Your task to perform on an android device: open chrome and create a bookmark for the current page Image 0: 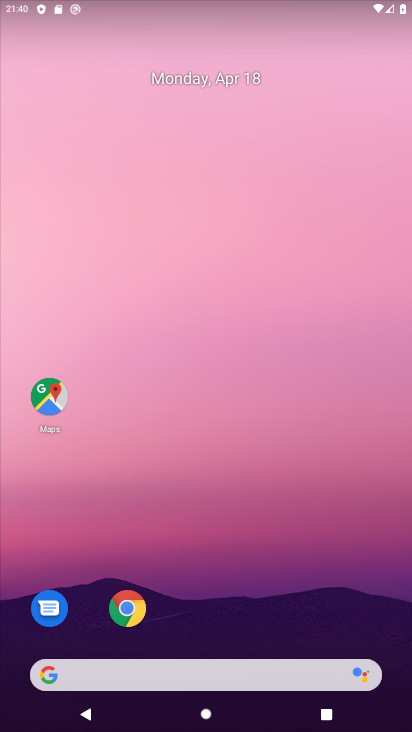
Step 0: click (129, 603)
Your task to perform on an android device: open chrome and create a bookmark for the current page Image 1: 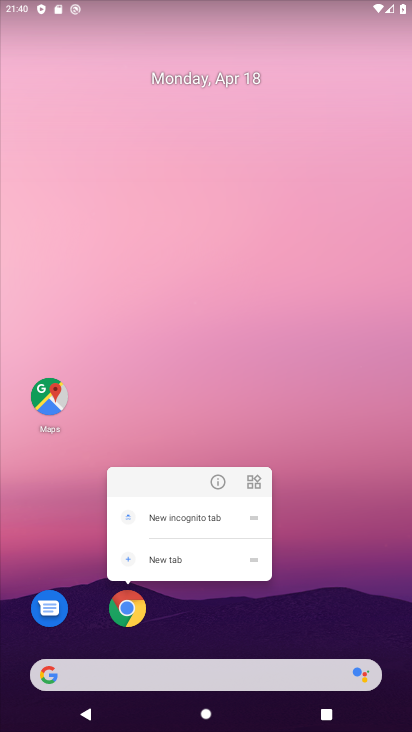
Step 1: click (129, 603)
Your task to perform on an android device: open chrome and create a bookmark for the current page Image 2: 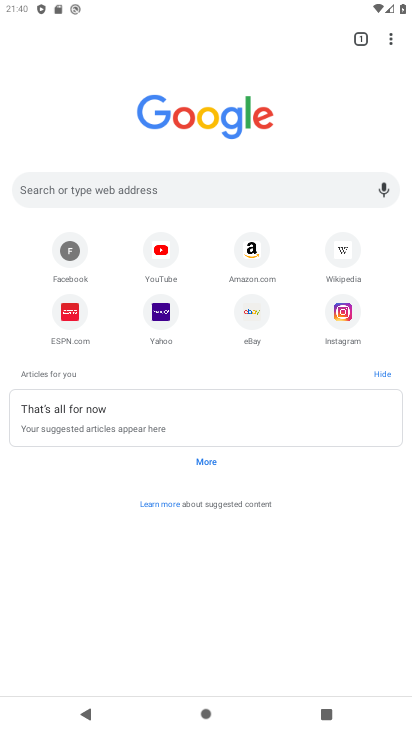
Step 2: click (391, 39)
Your task to perform on an android device: open chrome and create a bookmark for the current page Image 3: 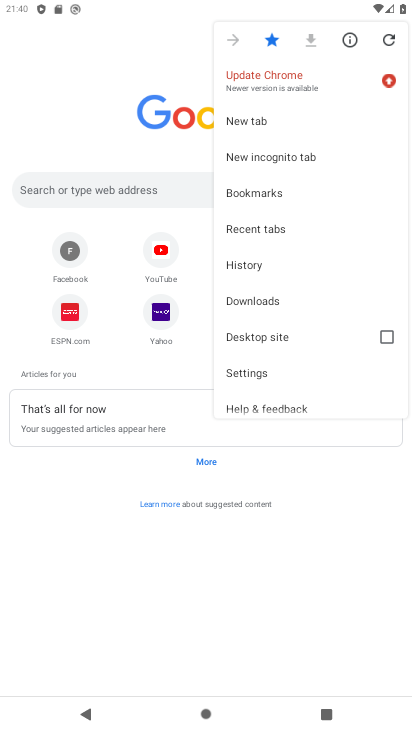
Step 3: click (279, 192)
Your task to perform on an android device: open chrome and create a bookmark for the current page Image 4: 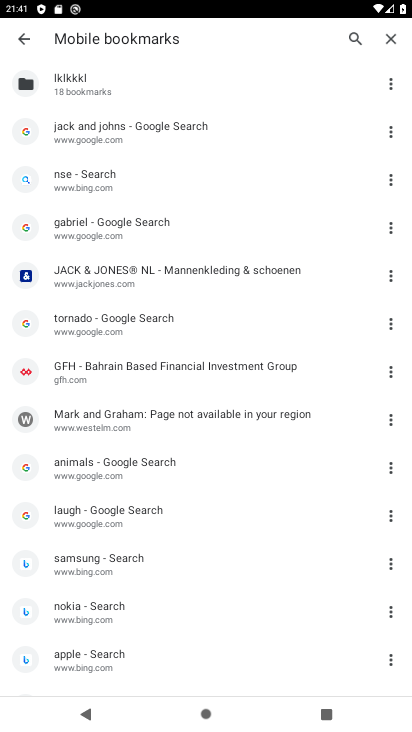
Step 4: click (130, 278)
Your task to perform on an android device: open chrome and create a bookmark for the current page Image 5: 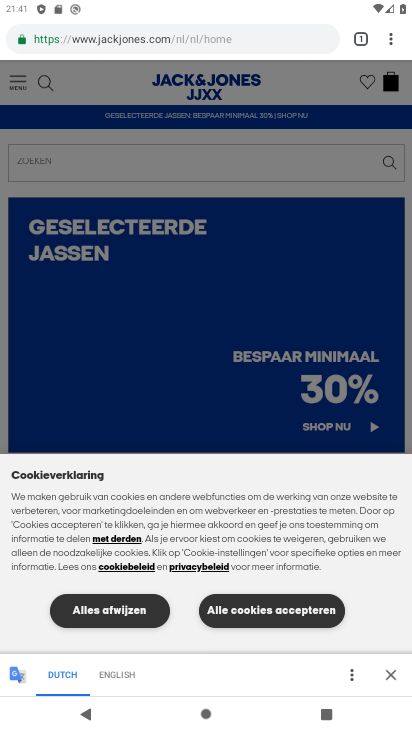
Step 5: task complete